Your task to perform on an android device: change keyboard looks Image 0: 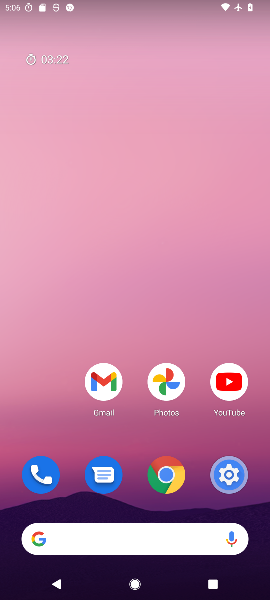
Step 0: press home button
Your task to perform on an android device: change keyboard looks Image 1: 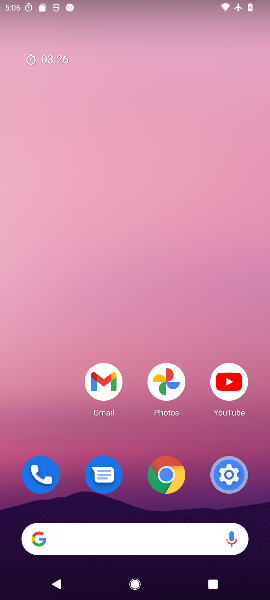
Step 1: drag from (52, 438) to (53, 184)
Your task to perform on an android device: change keyboard looks Image 2: 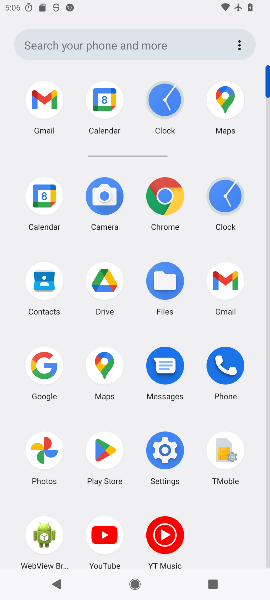
Step 2: click (159, 457)
Your task to perform on an android device: change keyboard looks Image 3: 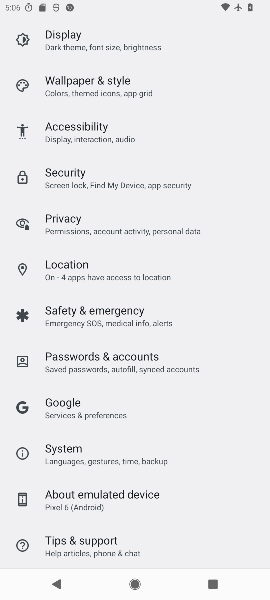
Step 3: drag from (211, 257) to (225, 370)
Your task to perform on an android device: change keyboard looks Image 4: 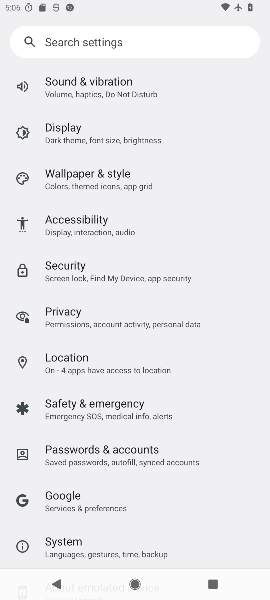
Step 4: drag from (231, 210) to (234, 322)
Your task to perform on an android device: change keyboard looks Image 5: 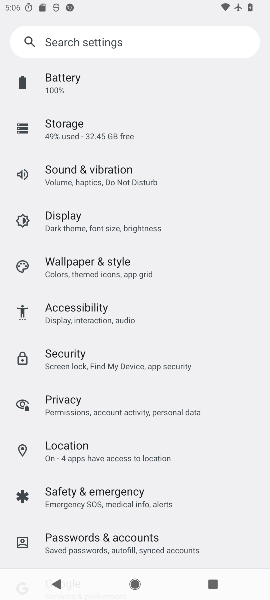
Step 5: drag from (227, 178) to (226, 292)
Your task to perform on an android device: change keyboard looks Image 6: 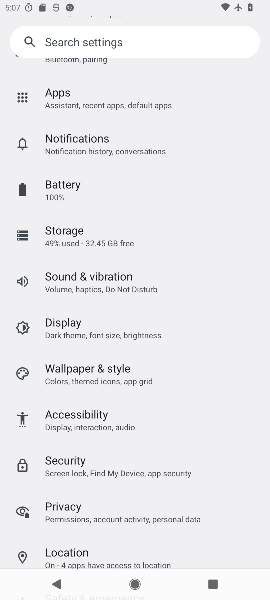
Step 6: drag from (228, 166) to (233, 261)
Your task to perform on an android device: change keyboard looks Image 7: 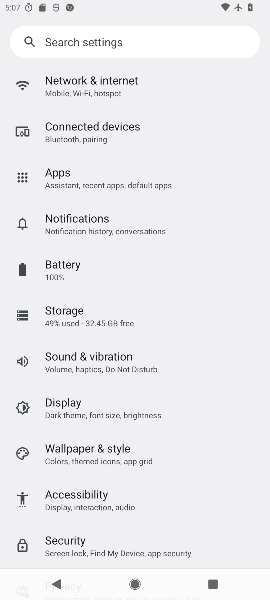
Step 7: drag from (202, 129) to (204, 226)
Your task to perform on an android device: change keyboard looks Image 8: 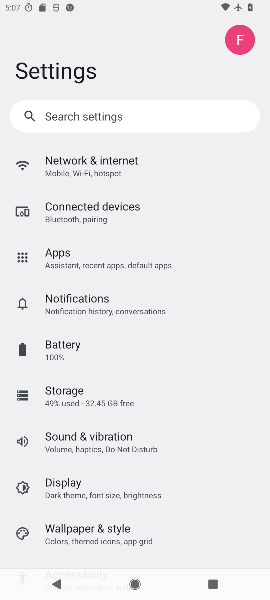
Step 8: drag from (208, 342) to (215, 249)
Your task to perform on an android device: change keyboard looks Image 9: 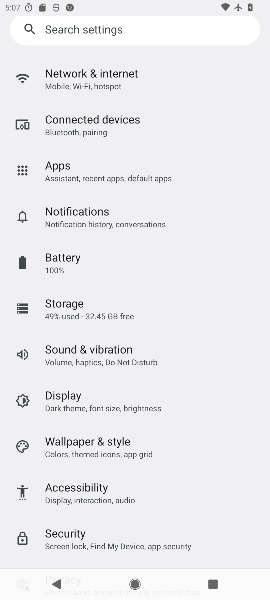
Step 9: drag from (219, 403) to (225, 285)
Your task to perform on an android device: change keyboard looks Image 10: 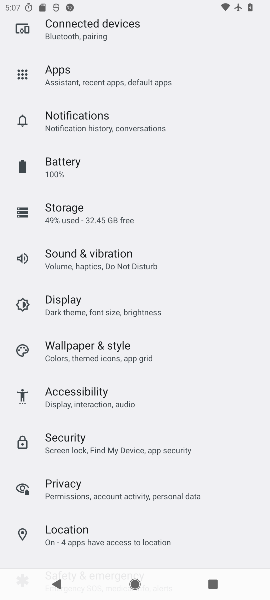
Step 10: drag from (214, 407) to (220, 302)
Your task to perform on an android device: change keyboard looks Image 11: 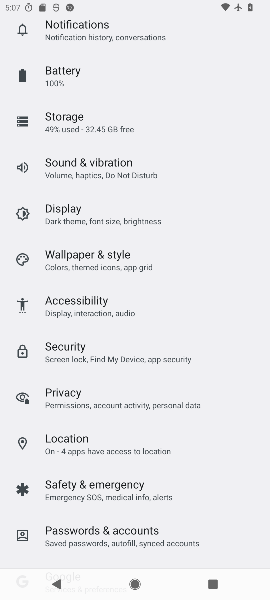
Step 11: drag from (218, 426) to (224, 321)
Your task to perform on an android device: change keyboard looks Image 12: 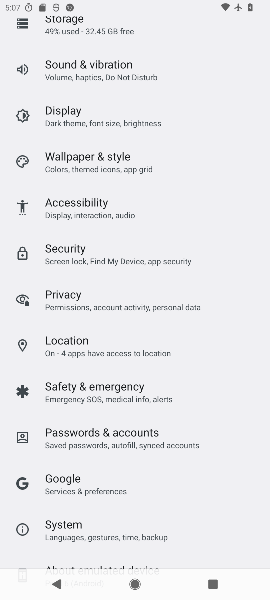
Step 12: drag from (224, 476) to (227, 355)
Your task to perform on an android device: change keyboard looks Image 13: 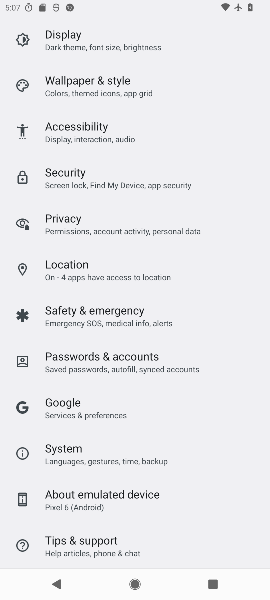
Step 13: drag from (211, 486) to (211, 365)
Your task to perform on an android device: change keyboard looks Image 14: 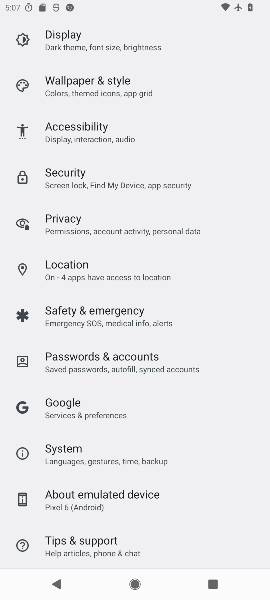
Step 14: click (98, 460)
Your task to perform on an android device: change keyboard looks Image 15: 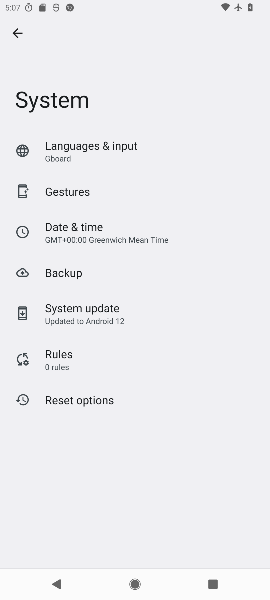
Step 15: click (95, 147)
Your task to perform on an android device: change keyboard looks Image 16: 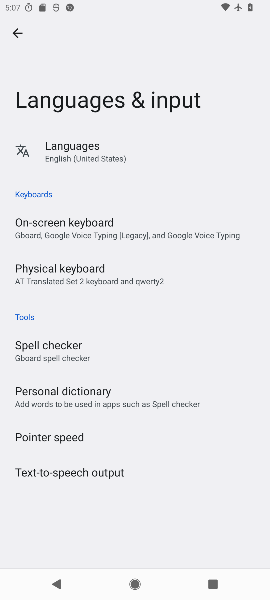
Step 16: click (103, 228)
Your task to perform on an android device: change keyboard looks Image 17: 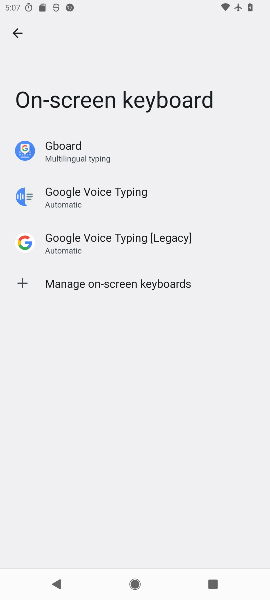
Step 17: click (83, 149)
Your task to perform on an android device: change keyboard looks Image 18: 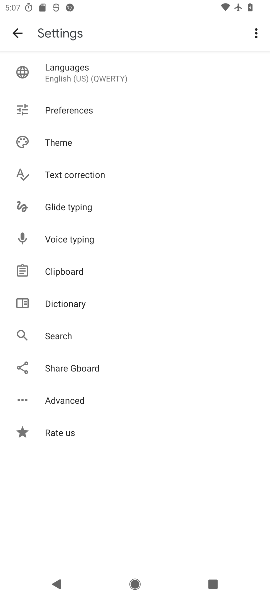
Step 18: click (74, 140)
Your task to perform on an android device: change keyboard looks Image 19: 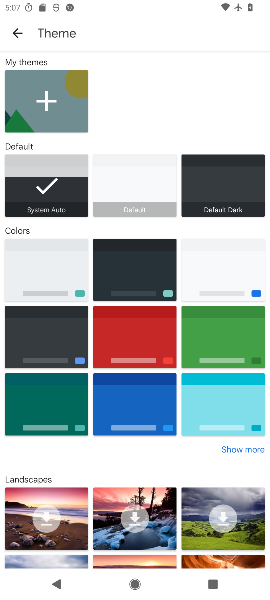
Step 19: click (133, 340)
Your task to perform on an android device: change keyboard looks Image 20: 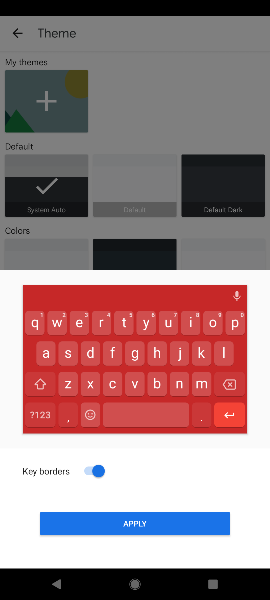
Step 20: click (148, 521)
Your task to perform on an android device: change keyboard looks Image 21: 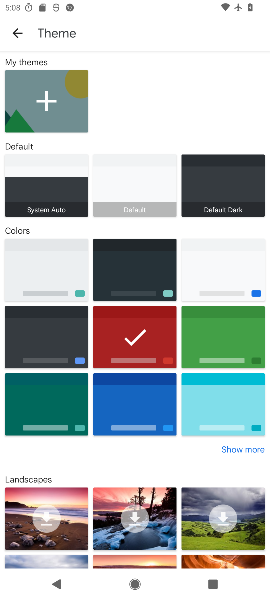
Step 21: task complete